Your task to perform on an android device: Open Amazon Image 0: 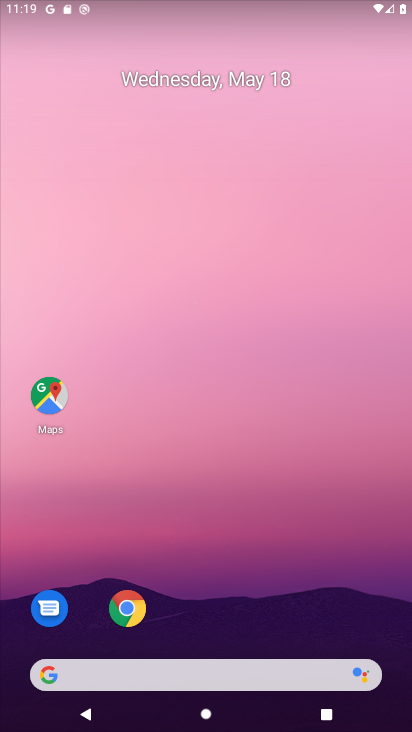
Step 0: click (138, 612)
Your task to perform on an android device: Open Amazon Image 1: 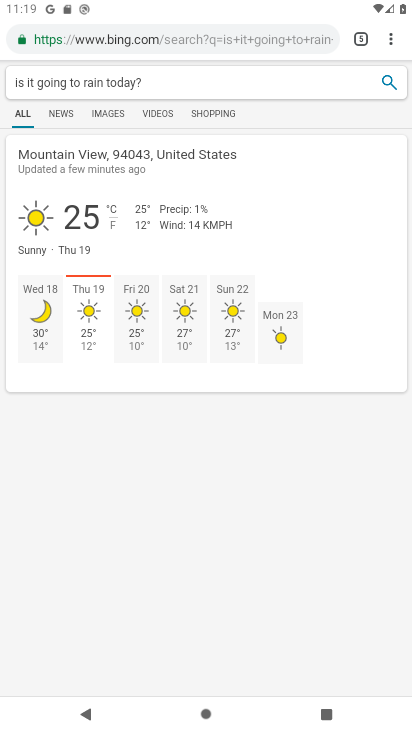
Step 1: click (368, 39)
Your task to perform on an android device: Open Amazon Image 2: 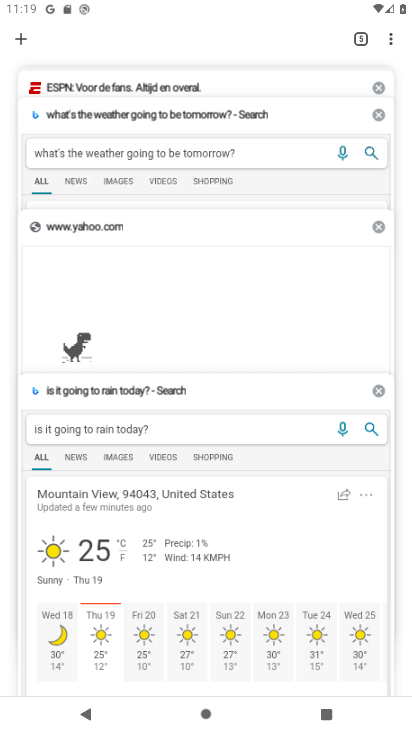
Step 2: click (21, 38)
Your task to perform on an android device: Open Amazon Image 3: 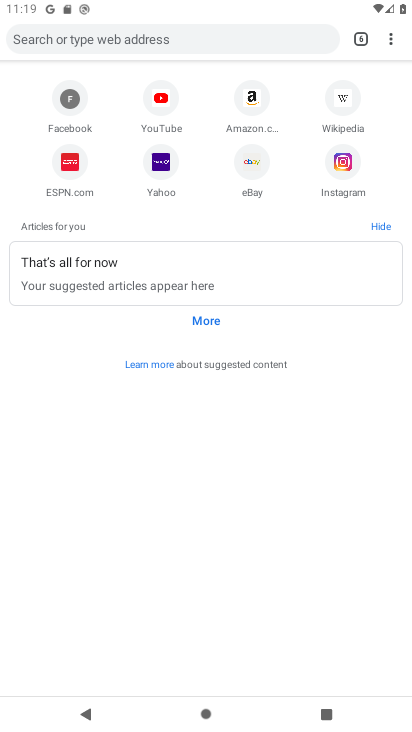
Step 3: click (265, 101)
Your task to perform on an android device: Open Amazon Image 4: 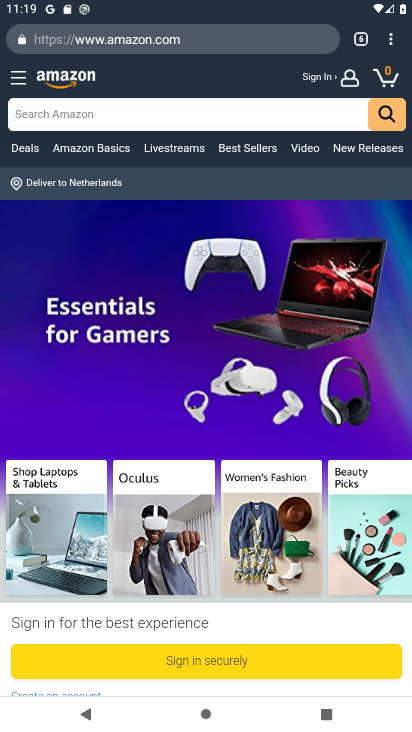
Step 4: task complete